Your task to perform on an android device: toggle wifi Image 0: 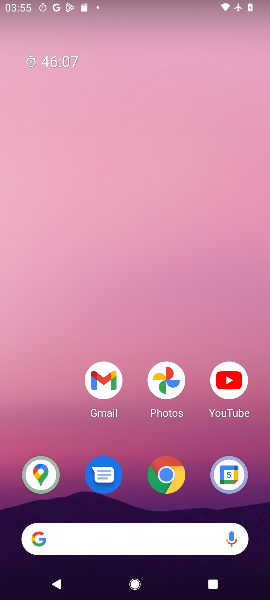
Step 0: press home button
Your task to perform on an android device: toggle wifi Image 1: 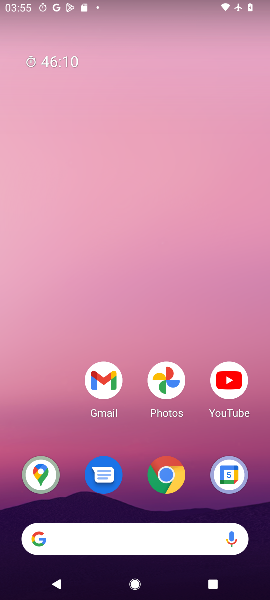
Step 1: drag from (58, 438) to (58, 146)
Your task to perform on an android device: toggle wifi Image 2: 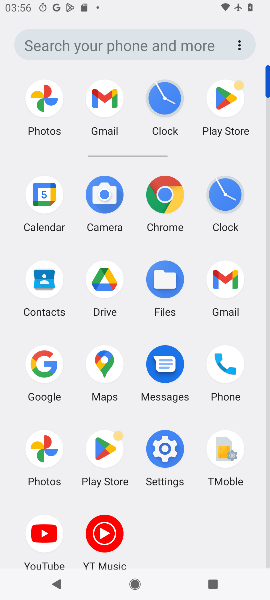
Step 2: click (165, 453)
Your task to perform on an android device: toggle wifi Image 3: 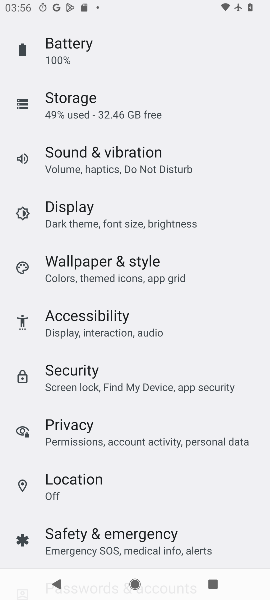
Step 3: drag from (209, 205) to (223, 294)
Your task to perform on an android device: toggle wifi Image 4: 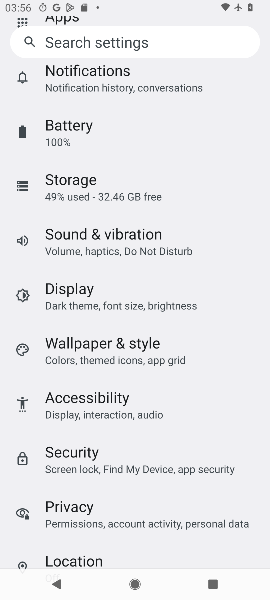
Step 4: drag from (232, 175) to (233, 262)
Your task to perform on an android device: toggle wifi Image 5: 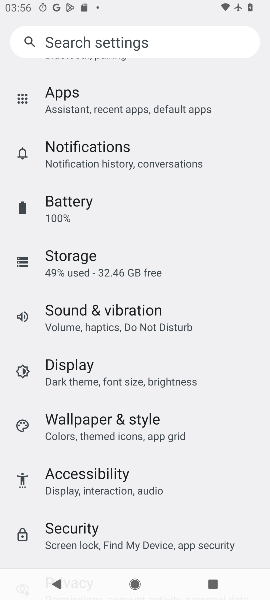
Step 5: drag from (229, 167) to (229, 279)
Your task to perform on an android device: toggle wifi Image 6: 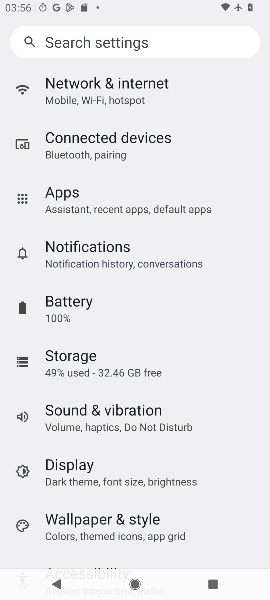
Step 6: drag from (233, 164) to (233, 355)
Your task to perform on an android device: toggle wifi Image 7: 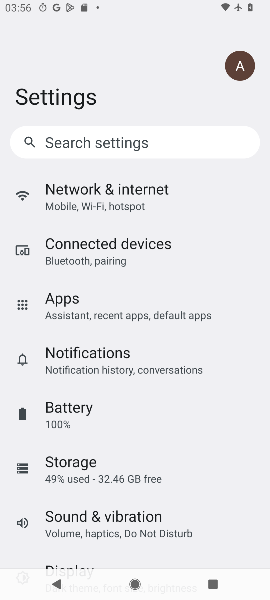
Step 7: click (175, 198)
Your task to perform on an android device: toggle wifi Image 8: 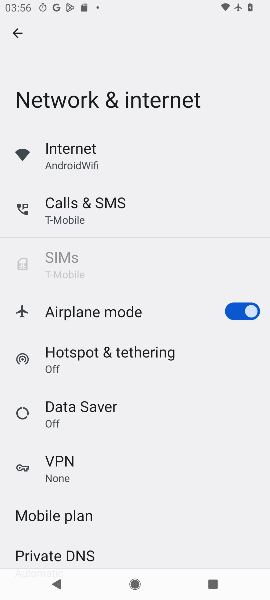
Step 8: click (86, 158)
Your task to perform on an android device: toggle wifi Image 9: 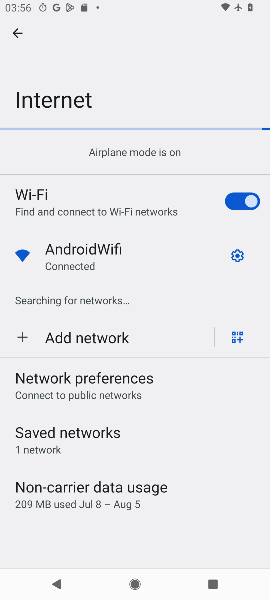
Step 9: click (230, 198)
Your task to perform on an android device: toggle wifi Image 10: 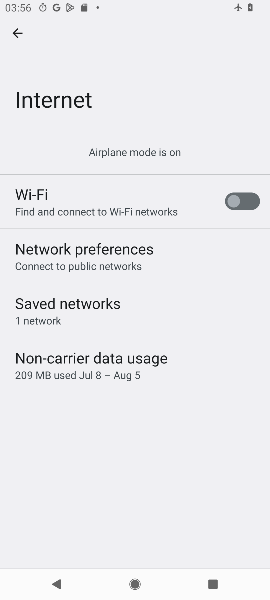
Step 10: task complete